Your task to perform on an android device: Open settings Image 0: 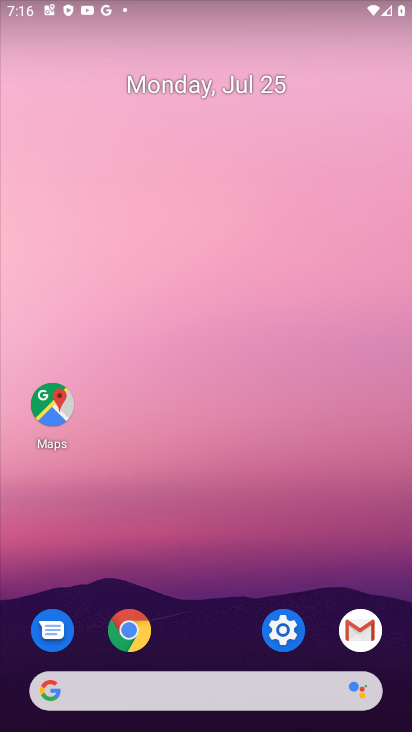
Step 0: click (283, 639)
Your task to perform on an android device: Open settings Image 1: 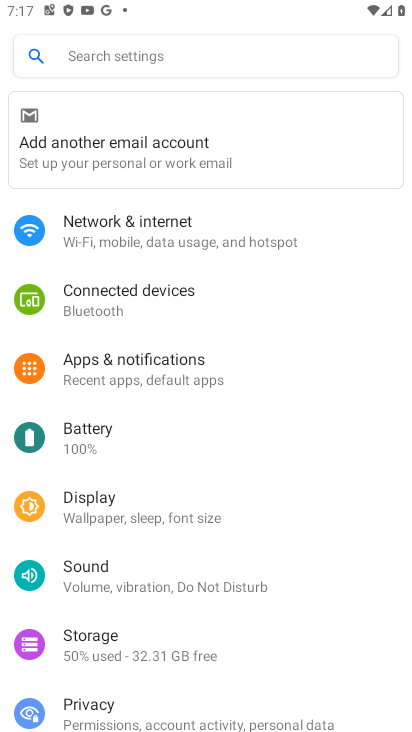
Step 1: task complete